Your task to perform on an android device: empty trash in google photos Image 0: 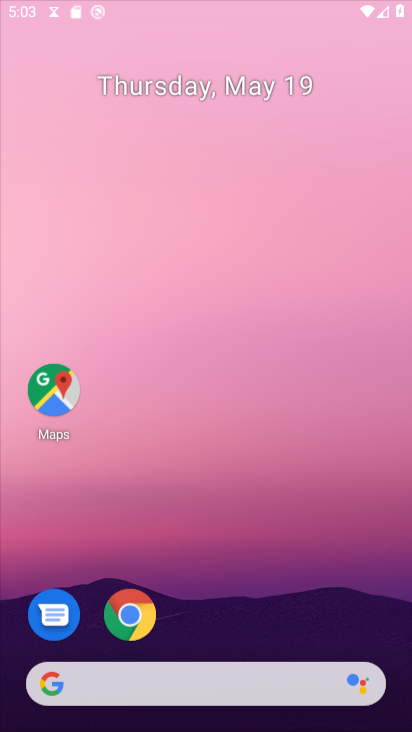
Step 0: drag from (307, 675) to (343, 91)
Your task to perform on an android device: empty trash in google photos Image 1: 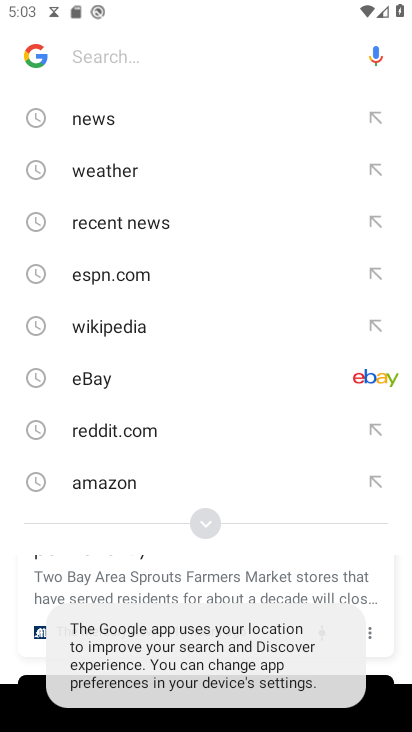
Step 1: press home button
Your task to perform on an android device: empty trash in google photos Image 2: 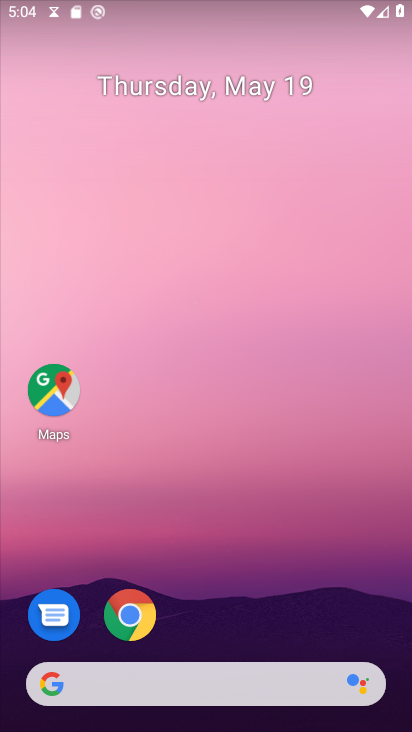
Step 2: drag from (288, 680) to (314, 62)
Your task to perform on an android device: empty trash in google photos Image 3: 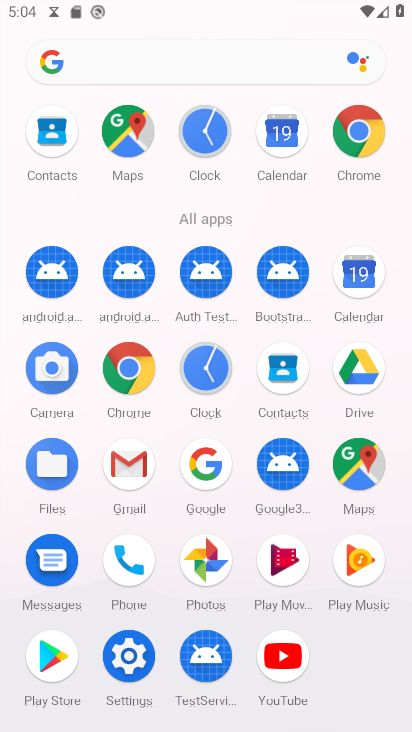
Step 3: click (207, 559)
Your task to perform on an android device: empty trash in google photos Image 4: 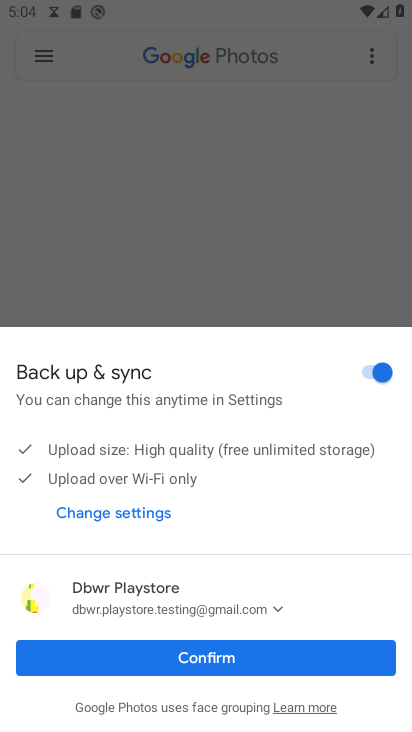
Step 4: click (273, 662)
Your task to perform on an android device: empty trash in google photos Image 5: 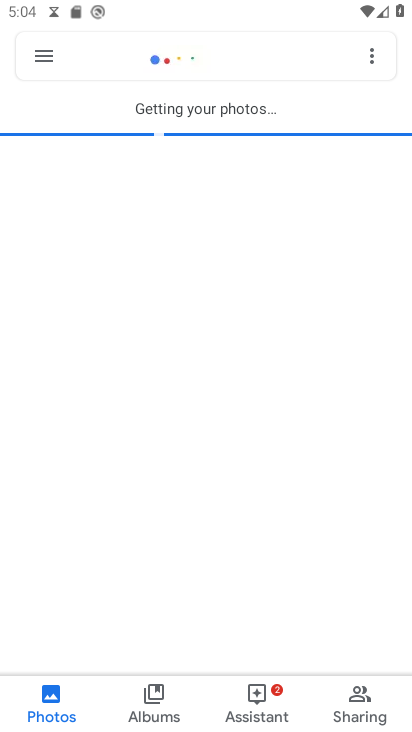
Step 5: click (370, 56)
Your task to perform on an android device: empty trash in google photos Image 6: 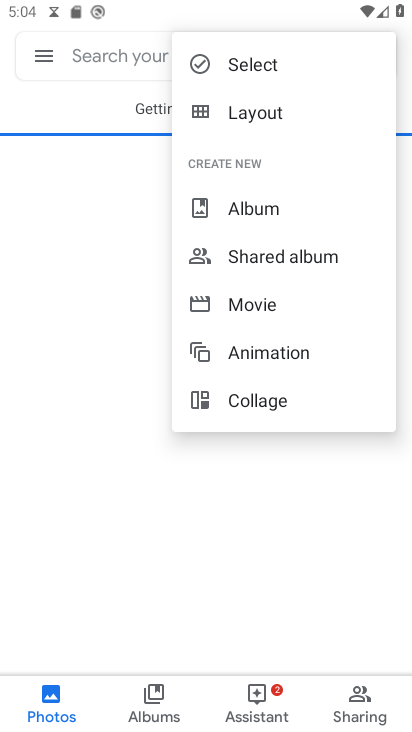
Step 6: click (359, 470)
Your task to perform on an android device: empty trash in google photos Image 7: 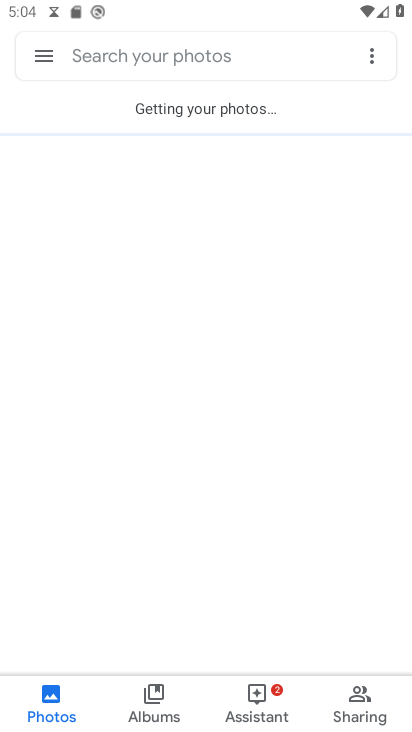
Step 7: click (41, 49)
Your task to perform on an android device: empty trash in google photos Image 8: 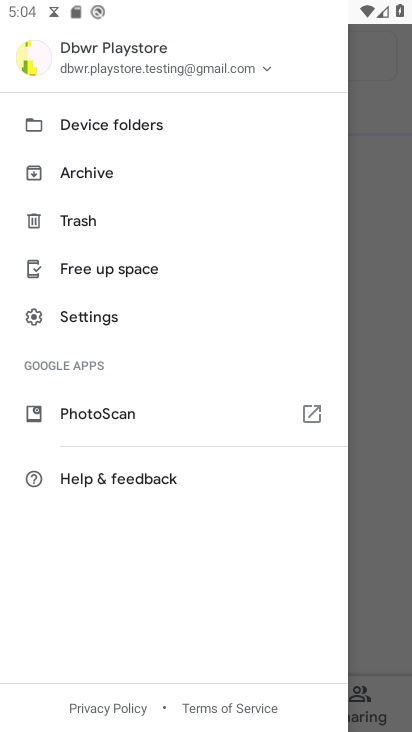
Step 8: click (55, 216)
Your task to perform on an android device: empty trash in google photos Image 9: 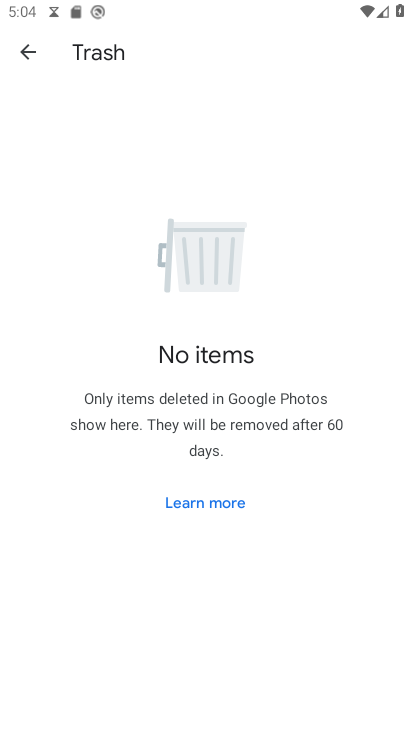
Step 9: task complete